Your task to perform on an android device: turn on improve location accuracy Image 0: 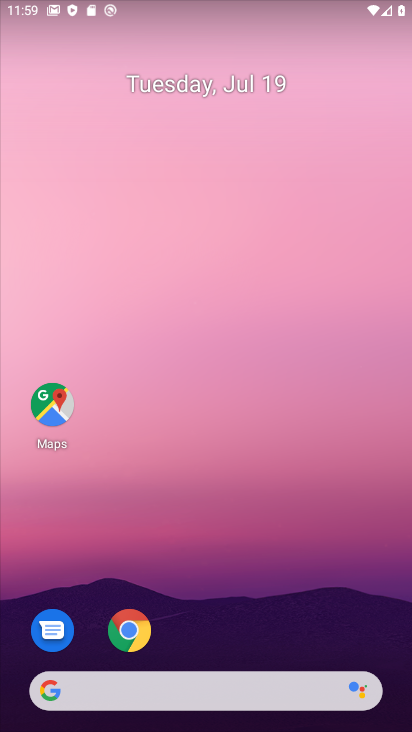
Step 0: drag from (218, 589) to (180, 138)
Your task to perform on an android device: turn on improve location accuracy Image 1: 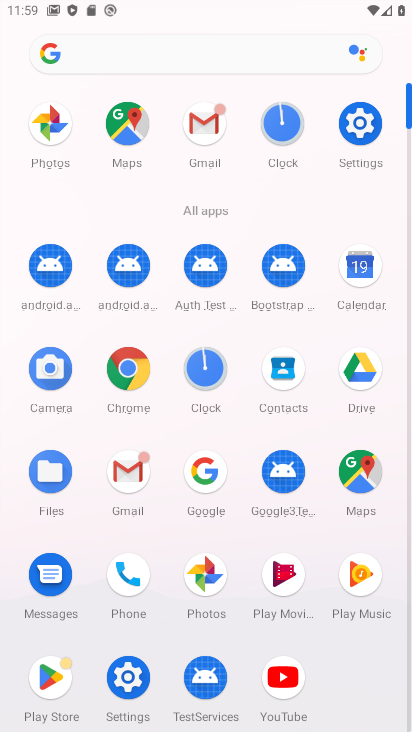
Step 1: click (359, 125)
Your task to perform on an android device: turn on improve location accuracy Image 2: 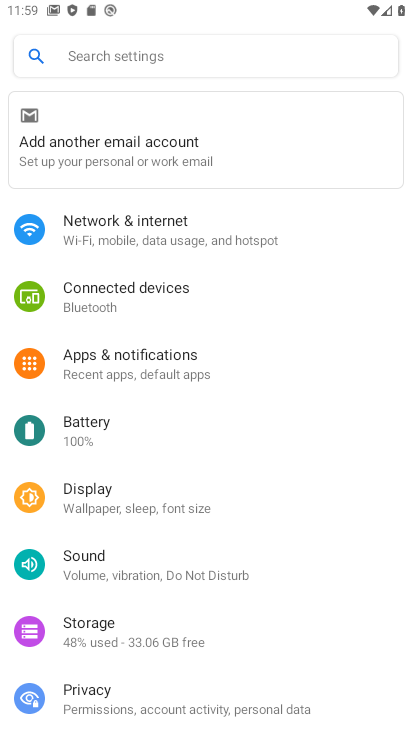
Step 2: drag from (245, 648) to (231, 231)
Your task to perform on an android device: turn on improve location accuracy Image 3: 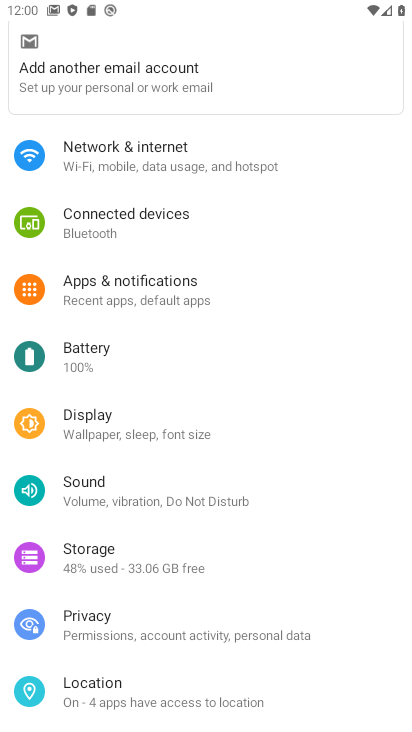
Step 3: click (76, 686)
Your task to perform on an android device: turn on improve location accuracy Image 4: 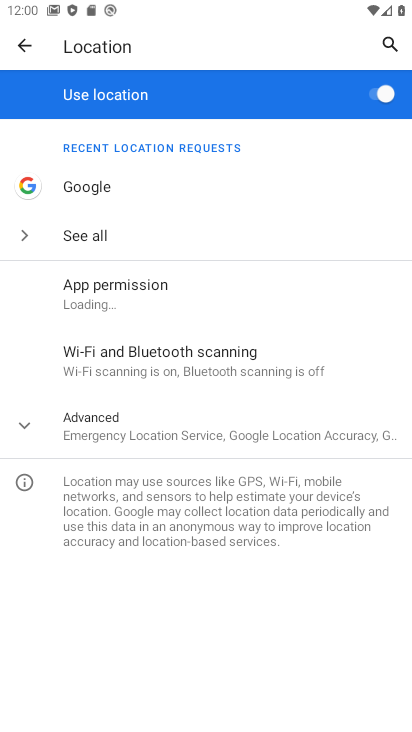
Step 4: click (42, 426)
Your task to perform on an android device: turn on improve location accuracy Image 5: 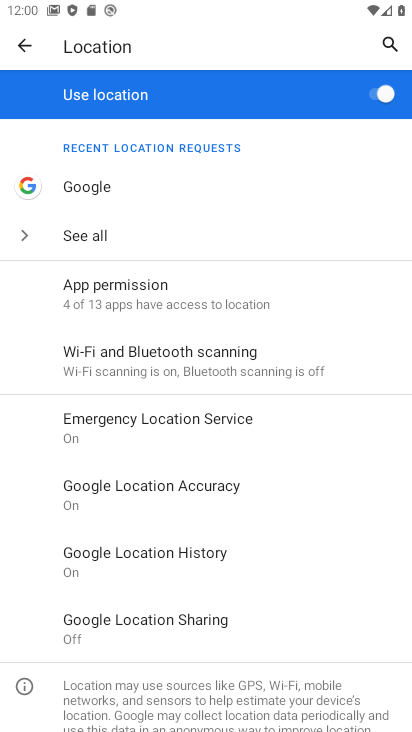
Step 5: click (135, 489)
Your task to perform on an android device: turn on improve location accuracy Image 6: 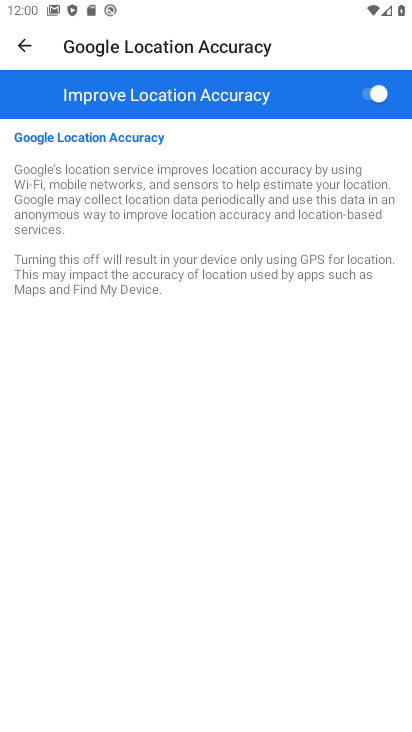
Step 6: task complete